Your task to perform on an android device: Open the map Image 0: 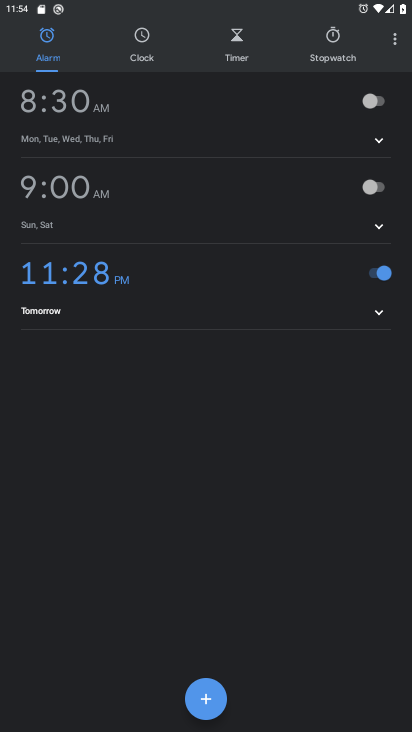
Step 0: press home button
Your task to perform on an android device: Open the map Image 1: 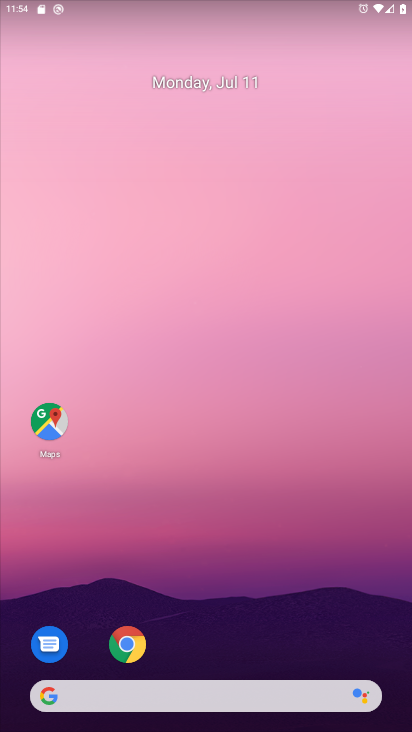
Step 1: click (50, 419)
Your task to perform on an android device: Open the map Image 2: 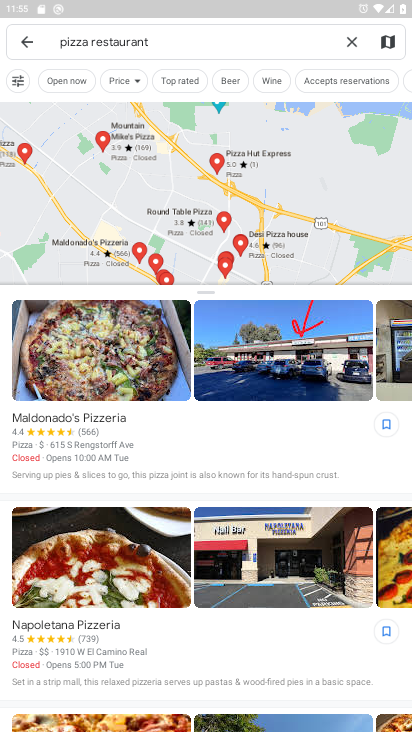
Step 2: click (25, 32)
Your task to perform on an android device: Open the map Image 3: 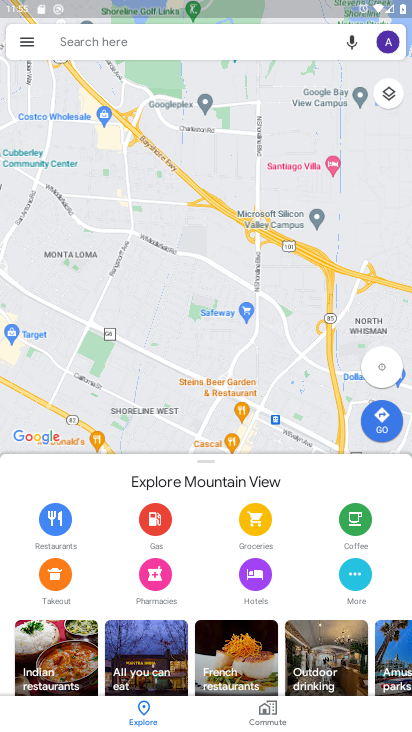
Step 3: task complete